Your task to perform on an android device: Go to display settings Image 0: 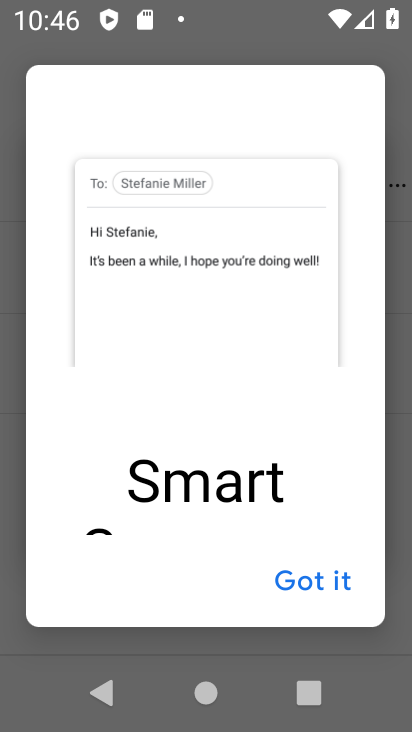
Step 0: press home button
Your task to perform on an android device: Go to display settings Image 1: 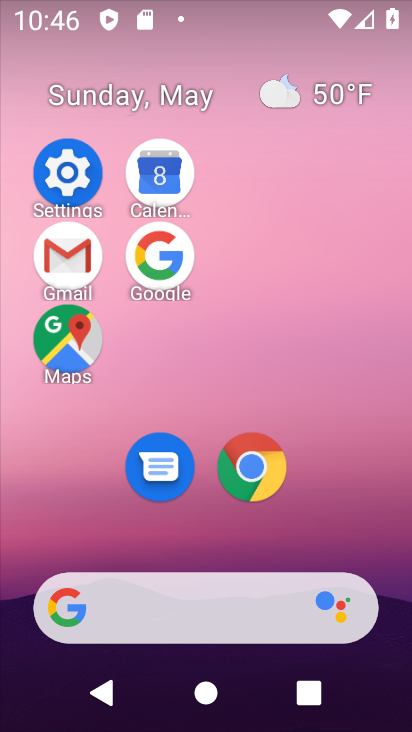
Step 1: click (79, 177)
Your task to perform on an android device: Go to display settings Image 2: 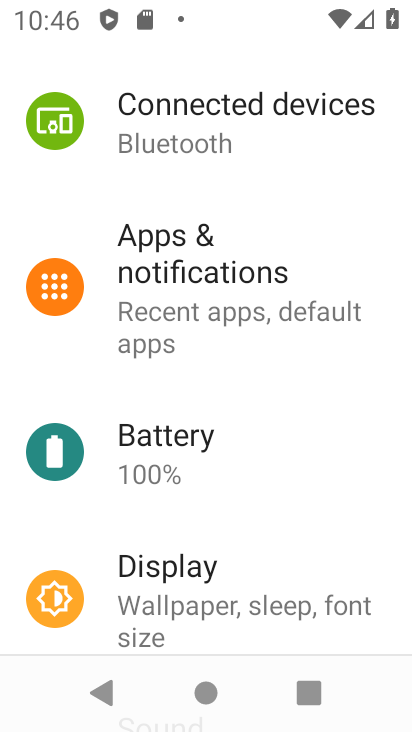
Step 2: click (196, 570)
Your task to perform on an android device: Go to display settings Image 3: 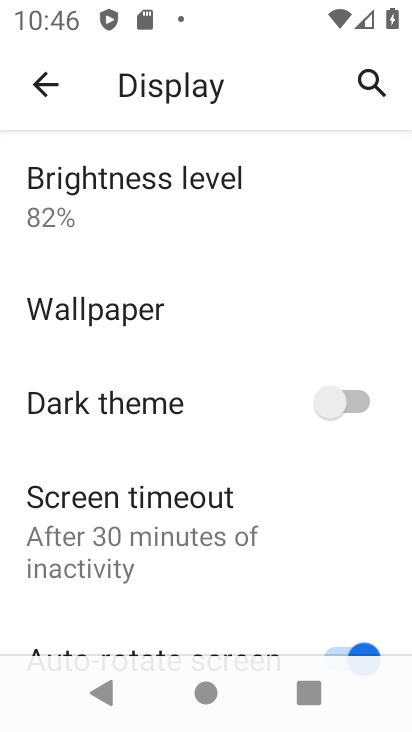
Step 3: task complete